Your task to perform on an android device: Do I have any events tomorrow? Image 0: 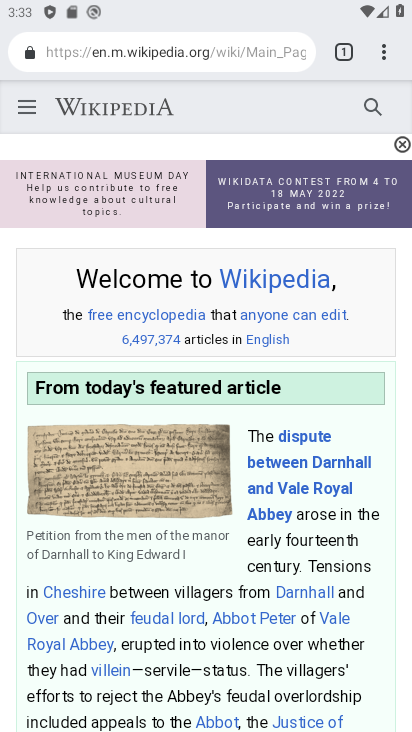
Step 0: press home button
Your task to perform on an android device: Do I have any events tomorrow? Image 1: 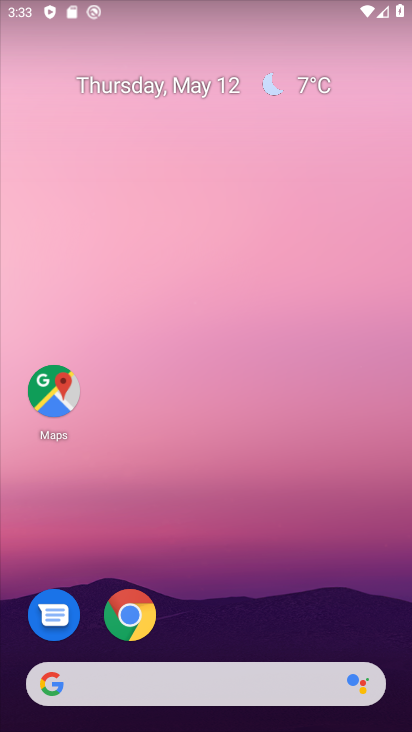
Step 1: drag from (211, 596) to (175, 52)
Your task to perform on an android device: Do I have any events tomorrow? Image 2: 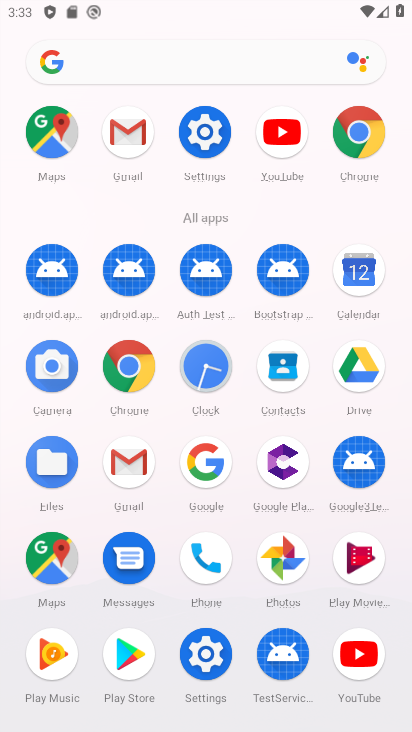
Step 2: click (367, 277)
Your task to perform on an android device: Do I have any events tomorrow? Image 3: 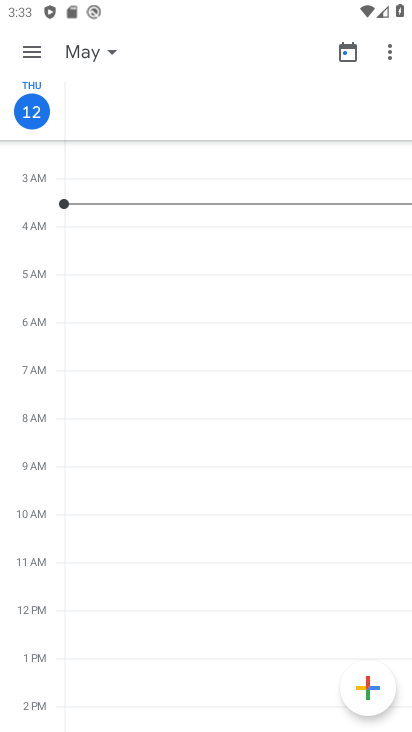
Step 3: click (80, 46)
Your task to perform on an android device: Do I have any events tomorrow? Image 4: 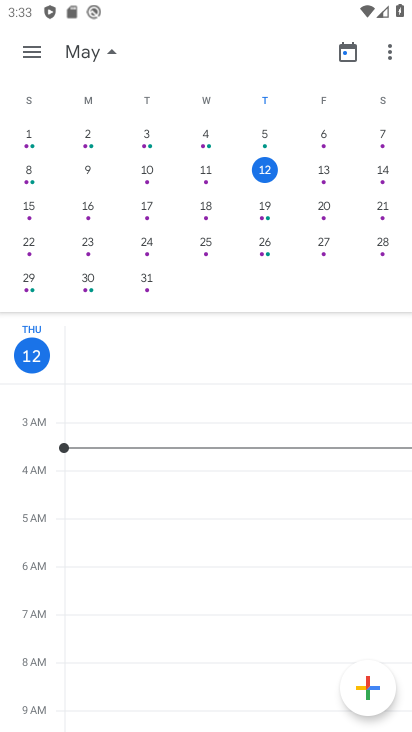
Step 4: click (327, 163)
Your task to perform on an android device: Do I have any events tomorrow? Image 5: 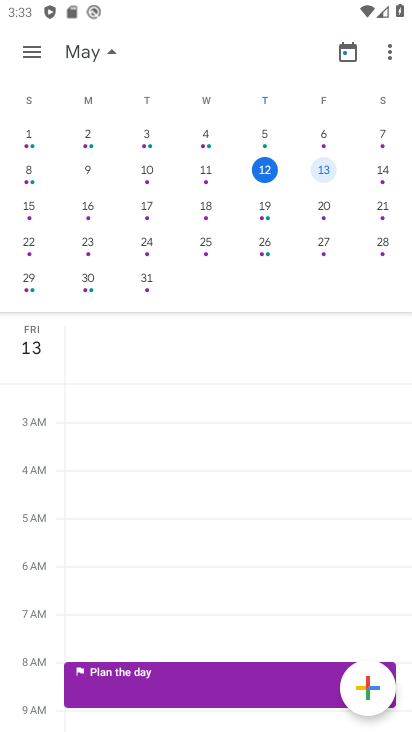
Step 5: task complete